Your task to perform on an android device: move an email to a new category in the gmail app Image 0: 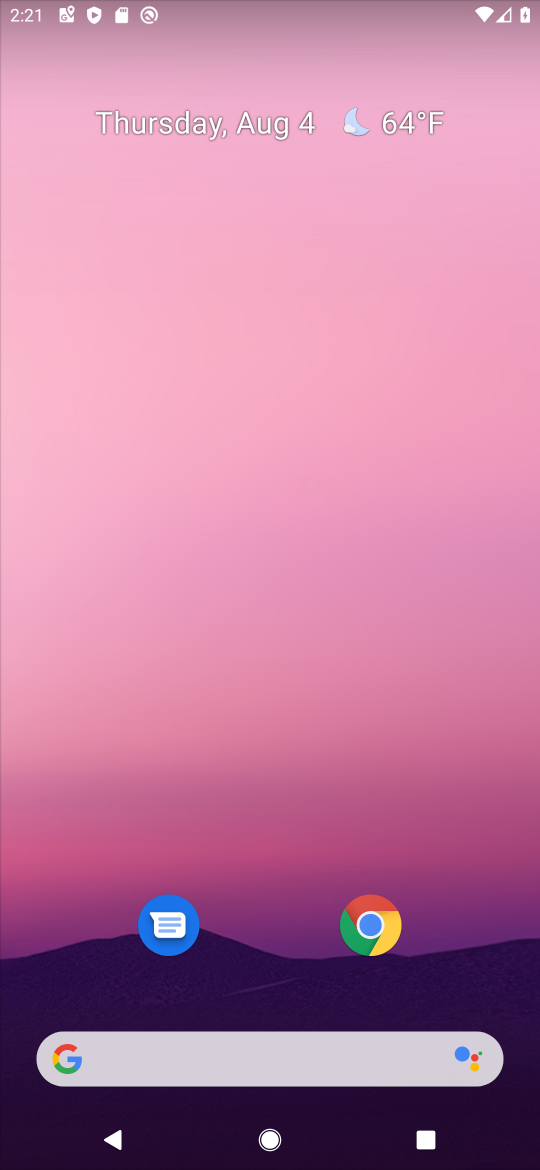
Step 0: drag from (277, 832) to (345, 3)
Your task to perform on an android device: move an email to a new category in the gmail app Image 1: 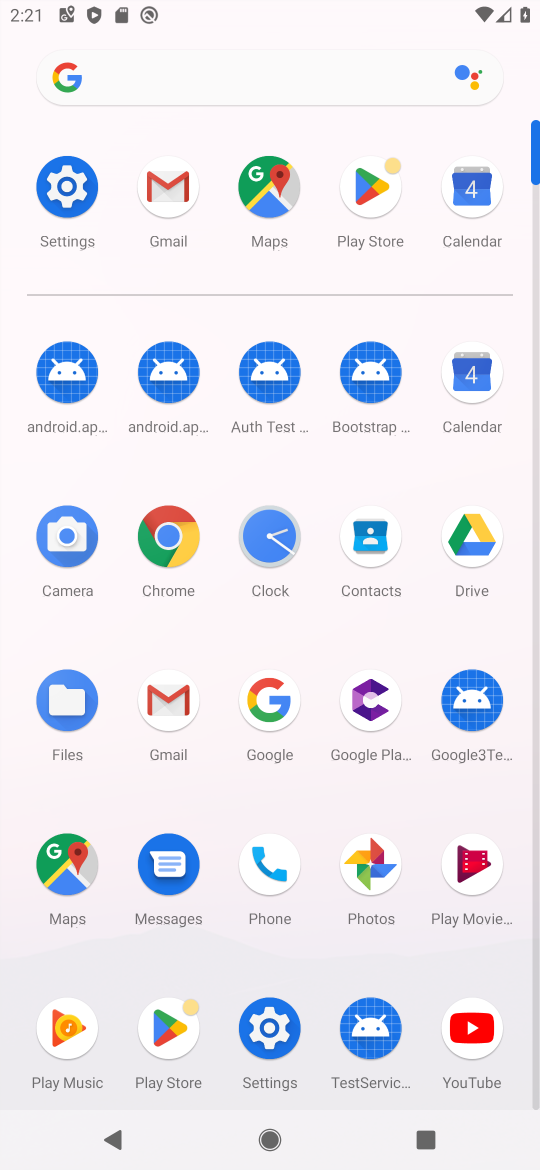
Step 1: click (180, 700)
Your task to perform on an android device: move an email to a new category in the gmail app Image 2: 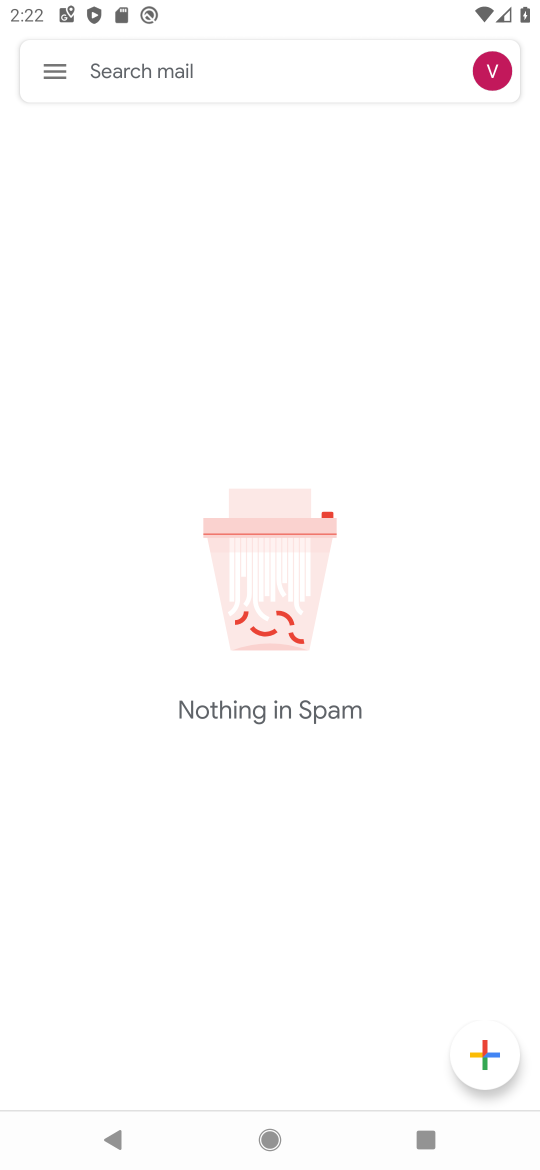
Step 2: click (64, 74)
Your task to perform on an android device: move an email to a new category in the gmail app Image 3: 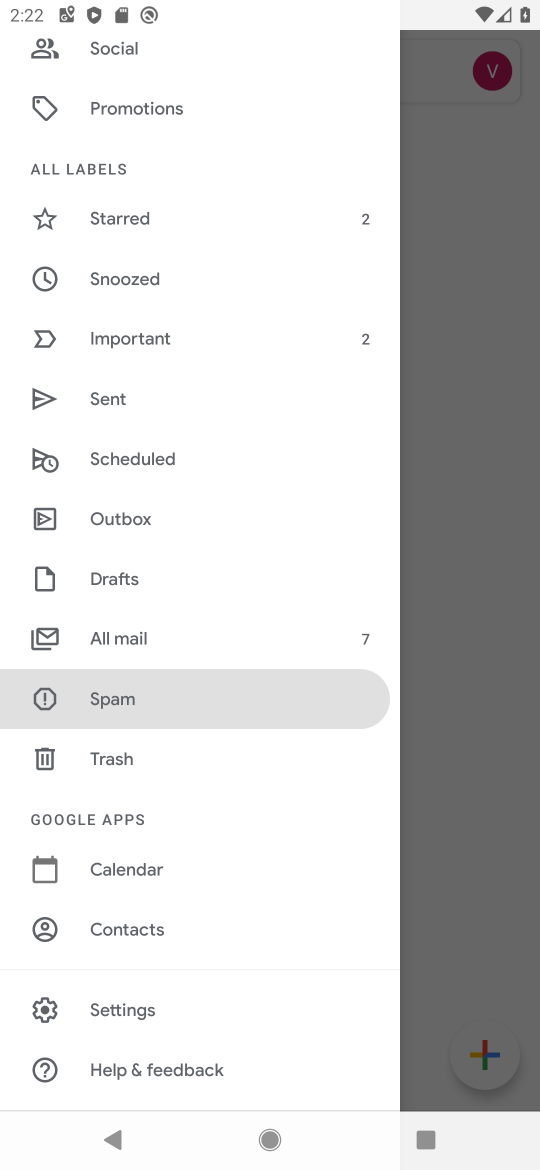
Step 3: click (158, 223)
Your task to perform on an android device: move an email to a new category in the gmail app Image 4: 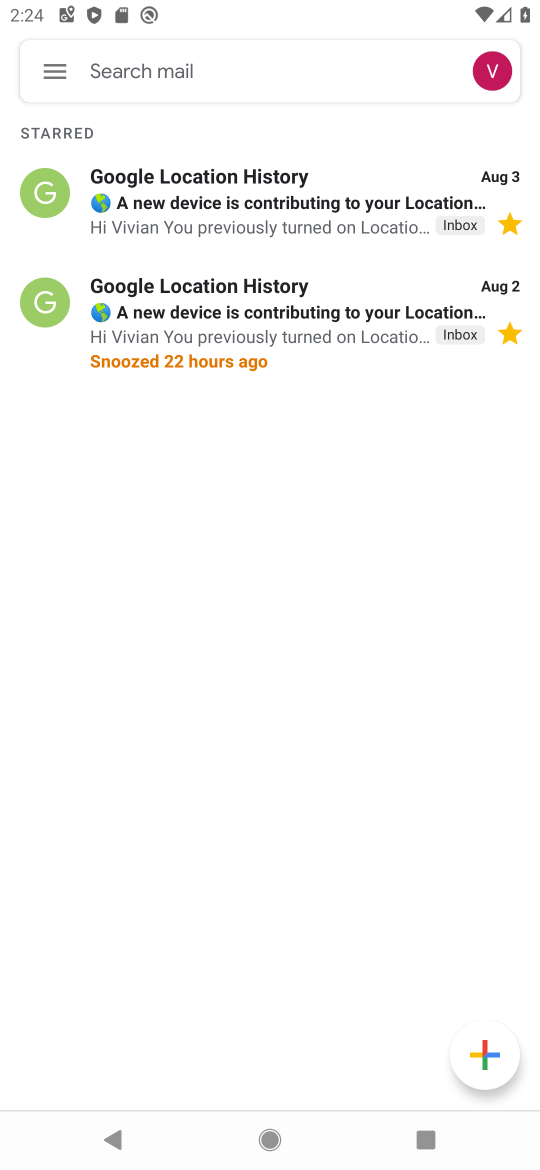
Step 4: task complete